Your task to perform on an android device: Search for sushi restaurants on Maps Image 0: 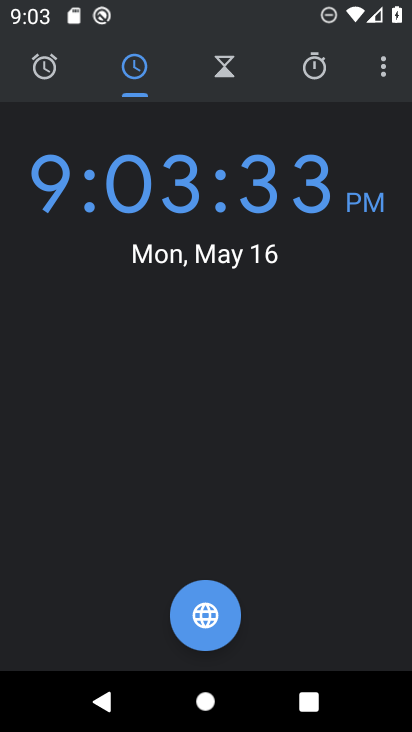
Step 0: press home button
Your task to perform on an android device: Search for sushi restaurants on Maps Image 1: 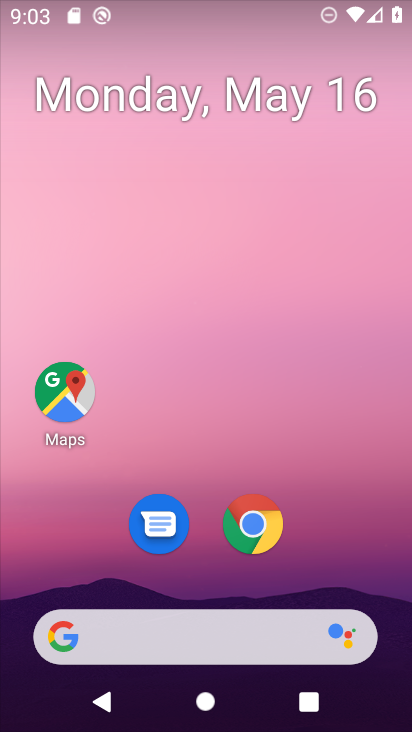
Step 1: click (67, 402)
Your task to perform on an android device: Search for sushi restaurants on Maps Image 2: 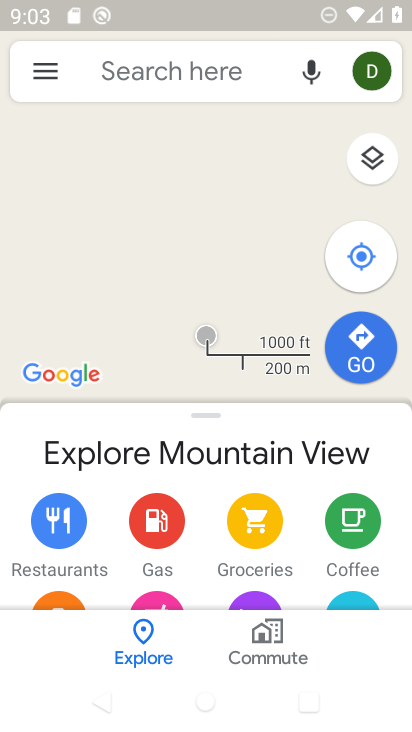
Step 2: click (222, 58)
Your task to perform on an android device: Search for sushi restaurants on Maps Image 3: 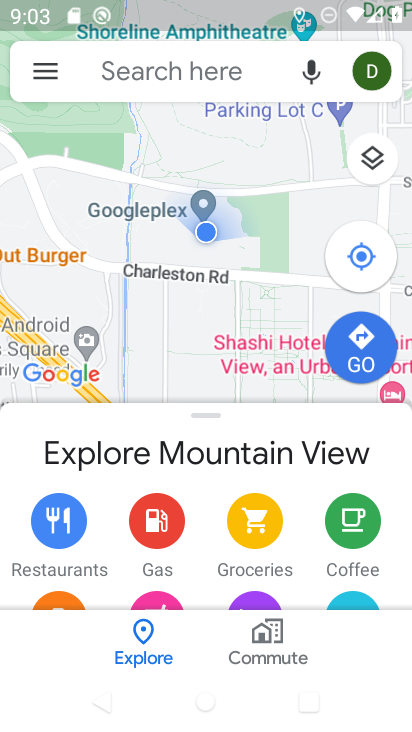
Step 3: click (216, 72)
Your task to perform on an android device: Search for sushi restaurants on Maps Image 4: 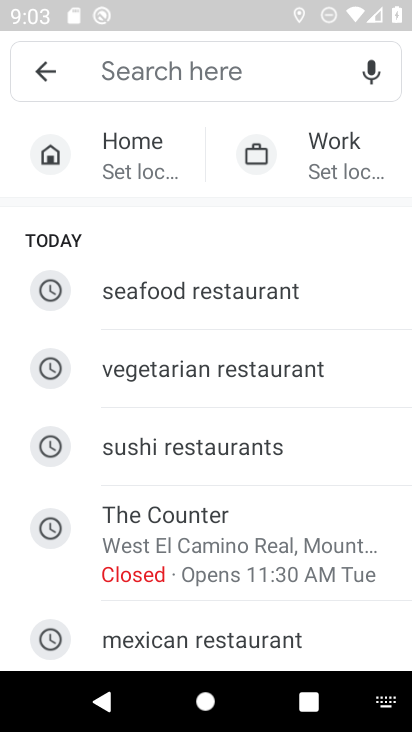
Step 4: click (189, 442)
Your task to perform on an android device: Search for sushi restaurants on Maps Image 5: 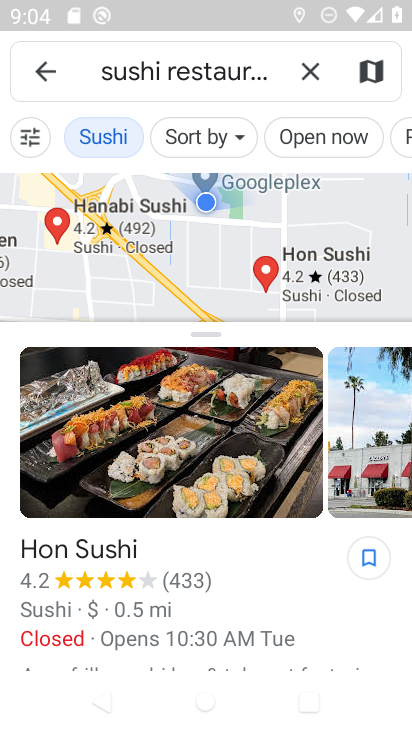
Step 5: task complete